Your task to perform on an android device: delete browsing data in the chrome app Image 0: 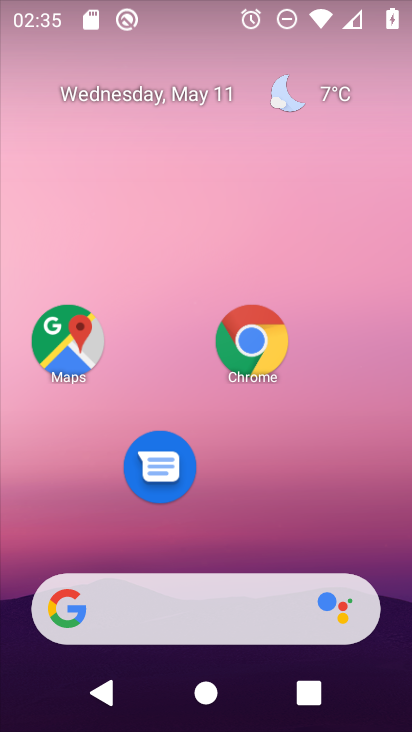
Step 0: drag from (150, 603) to (315, 84)
Your task to perform on an android device: delete browsing data in the chrome app Image 1: 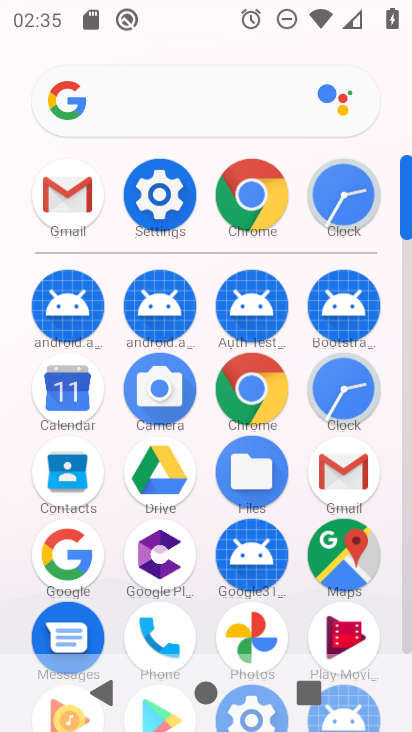
Step 1: click (258, 198)
Your task to perform on an android device: delete browsing data in the chrome app Image 2: 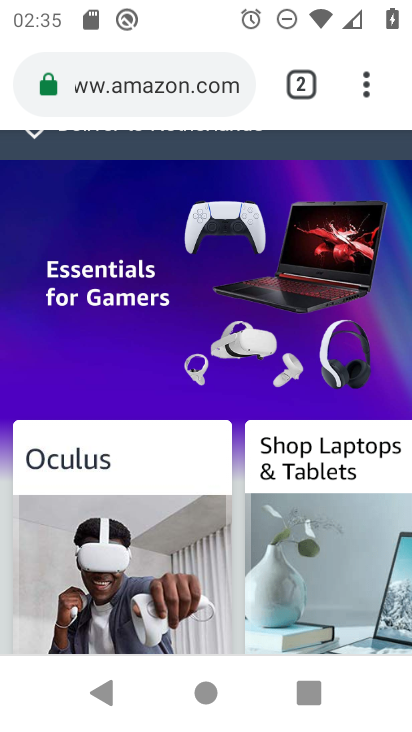
Step 2: drag from (367, 91) to (171, 523)
Your task to perform on an android device: delete browsing data in the chrome app Image 3: 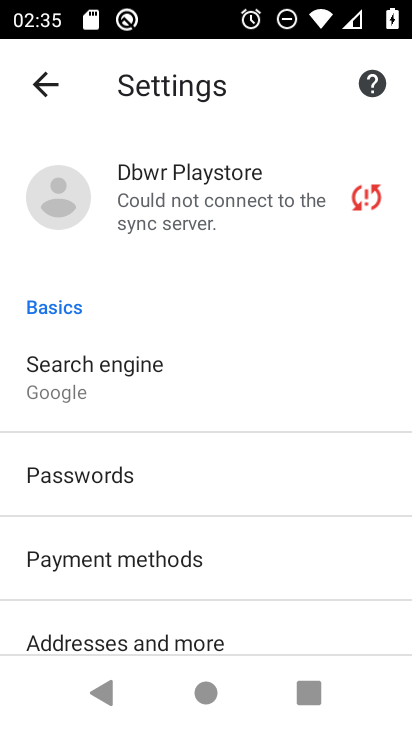
Step 3: drag from (243, 618) to (363, 218)
Your task to perform on an android device: delete browsing data in the chrome app Image 4: 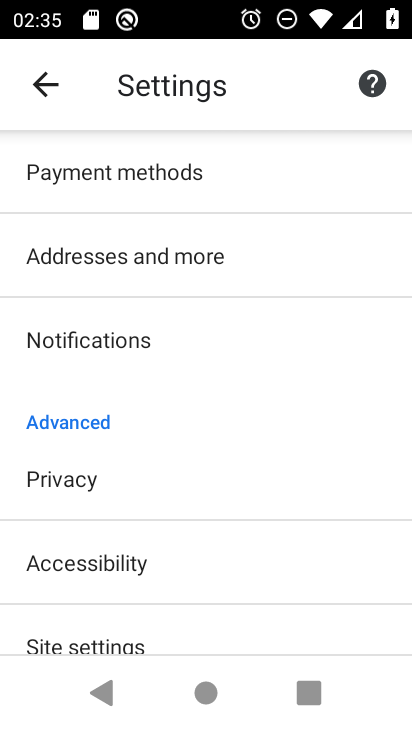
Step 4: click (71, 576)
Your task to perform on an android device: delete browsing data in the chrome app Image 5: 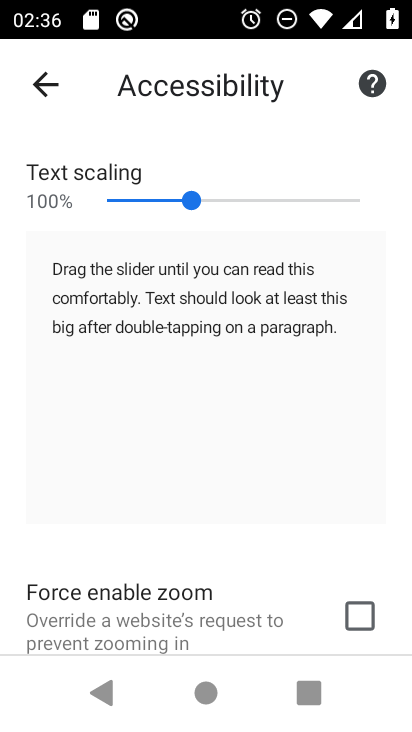
Step 5: click (42, 88)
Your task to perform on an android device: delete browsing data in the chrome app Image 6: 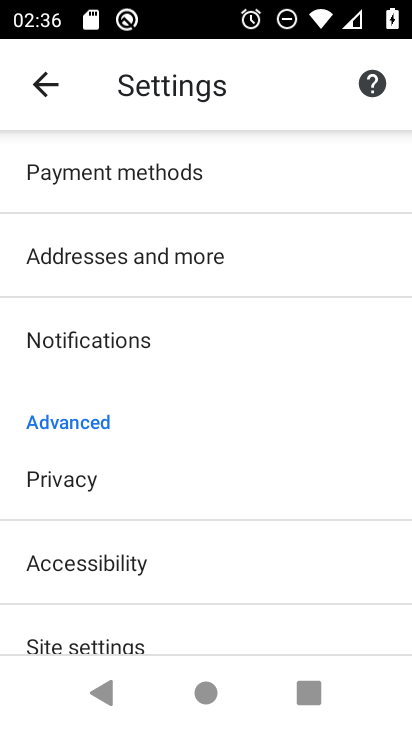
Step 6: click (77, 481)
Your task to perform on an android device: delete browsing data in the chrome app Image 7: 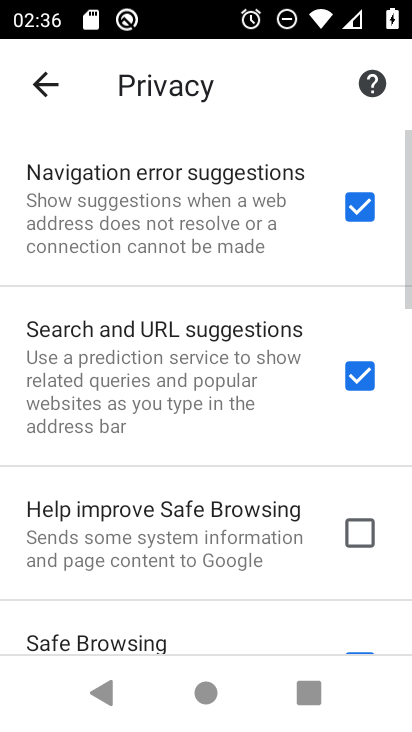
Step 7: drag from (155, 598) to (325, 70)
Your task to perform on an android device: delete browsing data in the chrome app Image 8: 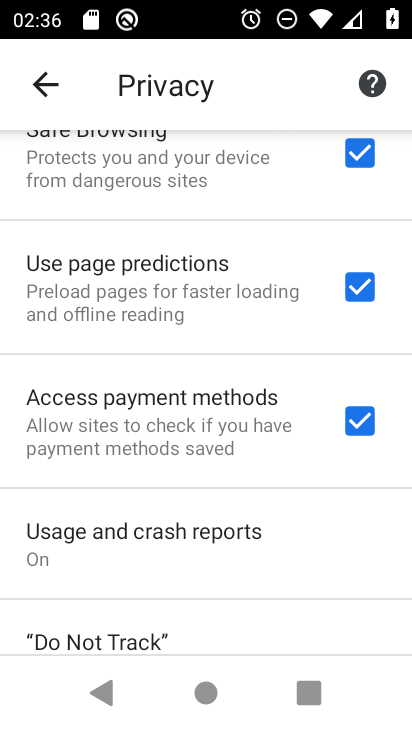
Step 8: drag from (187, 579) to (322, 133)
Your task to perform on an android device: delete browsing data in the chrome app Image 9: 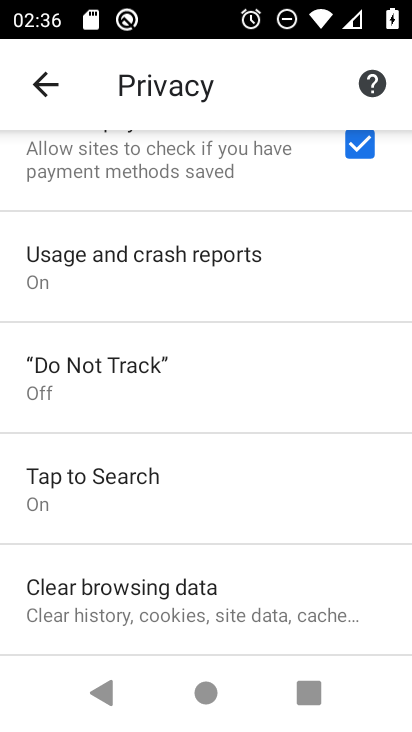
Step 9: click (174, 588)
Your task to perform on an android device: delete browsing data in the chrome app Image 10: 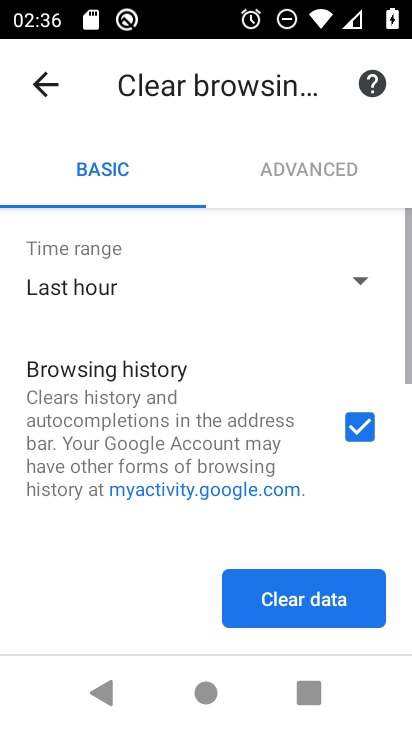
Step 10: drag from (166, 514) to (302, 146)
Your task to perform on an android device: delete browsing data in the chrome app Image 11: 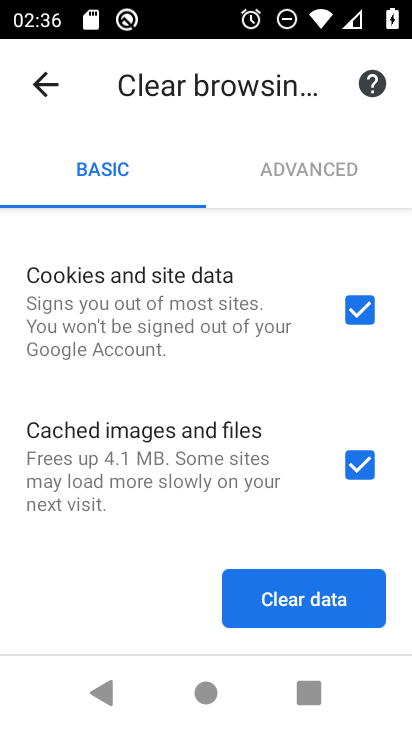
Step 11: click (291, 604)
Your task to perform on an android device: delete browsing data in the chrome app Image 12: 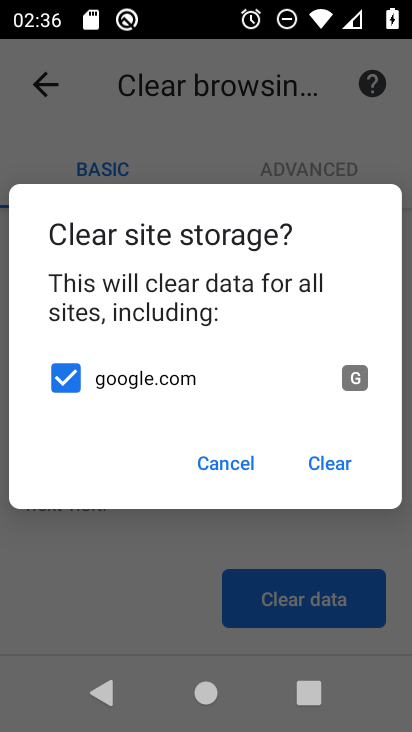
Step 12: click (326, 462)
Your task to perform on an android device: delete browsing data in the chrome app Image 13: 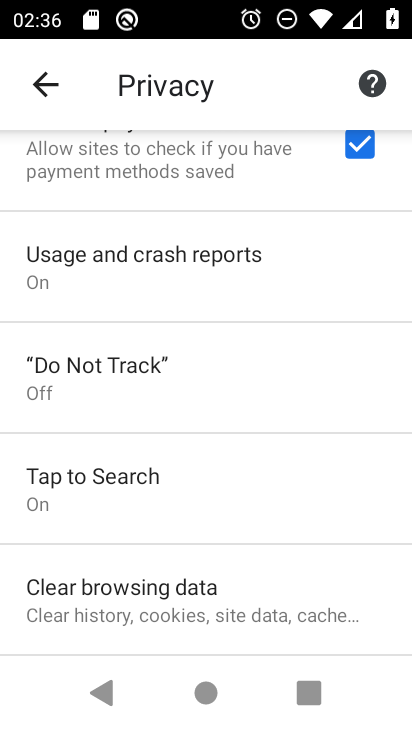
Step 13: task complete